Your task to perform on an android device: toggle airplane mode Image 0: 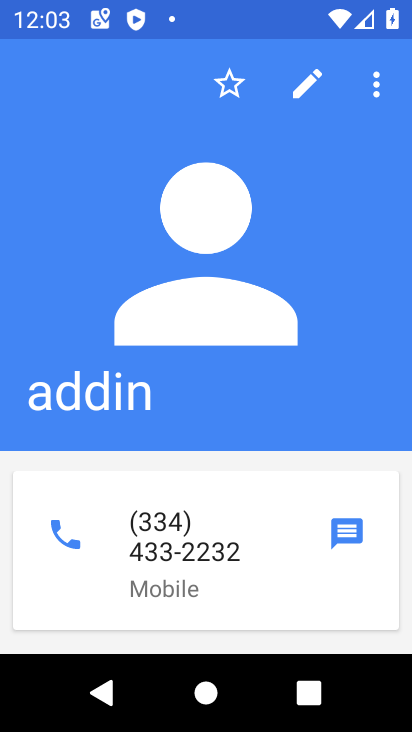
Step 0: press home button
Your task to perform on an android device: toggle airplane mode Image 1: 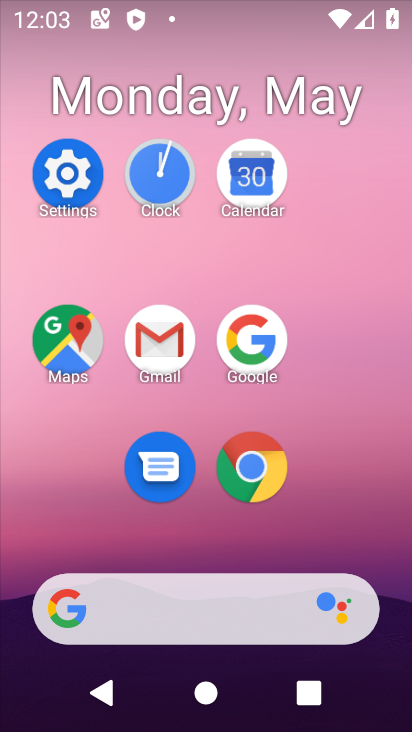
Step 1: click (75, 186)
Your task to perform on an android device: toggle airplane mode Image 2: 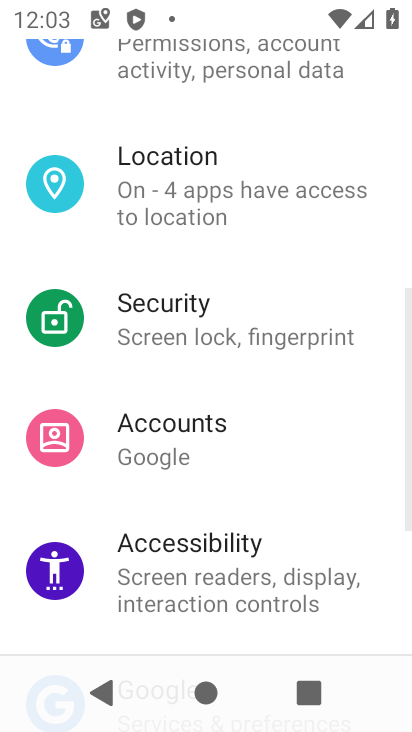
Step 2: drag from (296, 199) to (299, 544)
Your task to perform on an android device: toggle airplane mode Image 3: 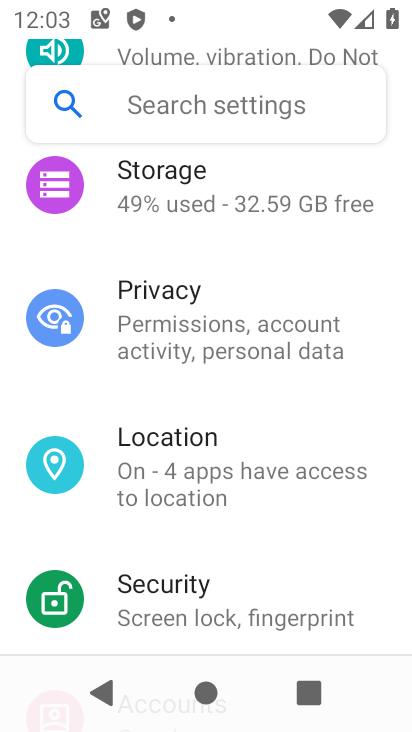
Step 3: drag from (265, 239) to (308, 591)
Your task to perform on an android device: toggle airplane mode Image 4: 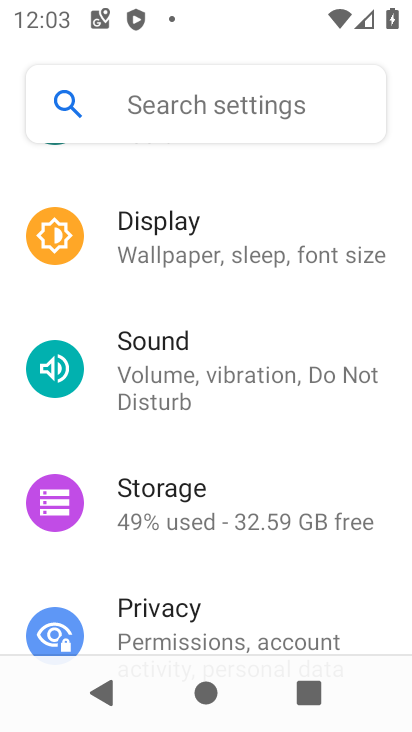
Step 4: drag from (310, 224) to (346, 639)
Your task to perform on an android device: toggle airplane mode Image 5: 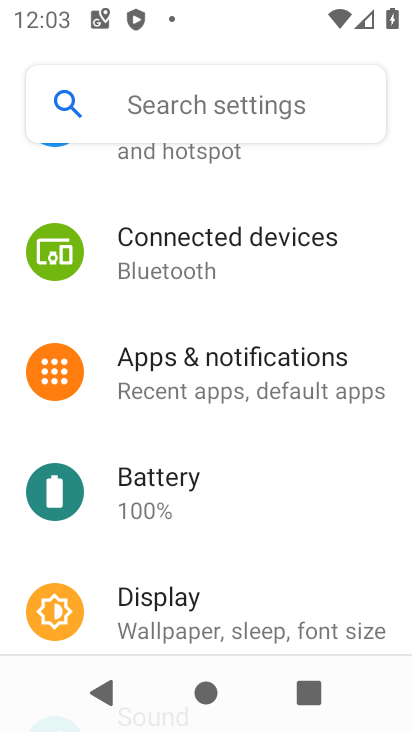
Step 5: drag from (222, 196) to (251, 563)
Your task to perform on an android device: toggle airplane mode Image 6: 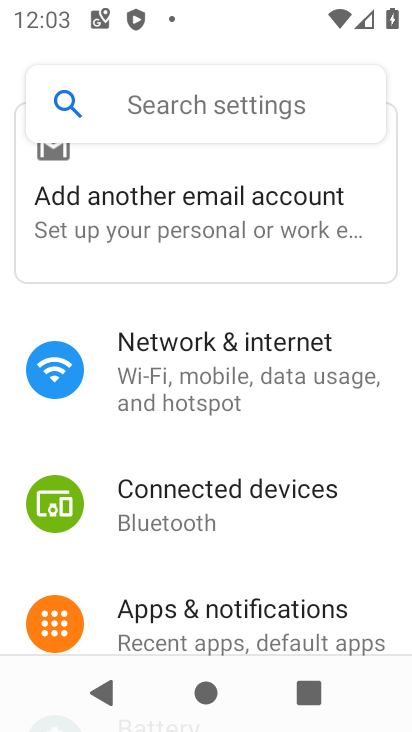
Step 6: click (308, 382)
Your task to perform on an android device: toggle airplane mode Image 7: 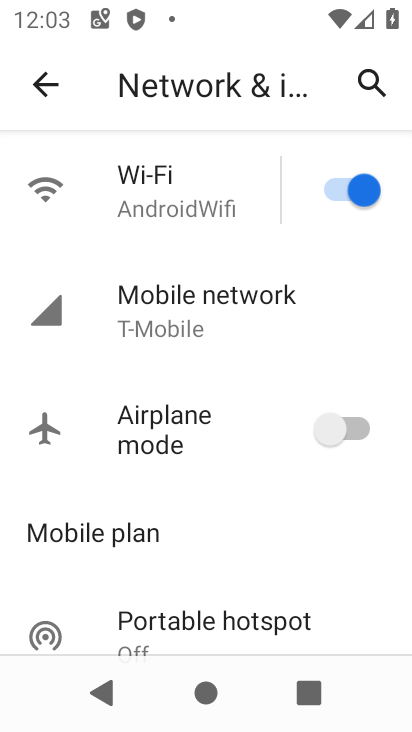
Step 7: click (354, 438)
Your task to perform on an android device: toggle airplane mode Image 8: 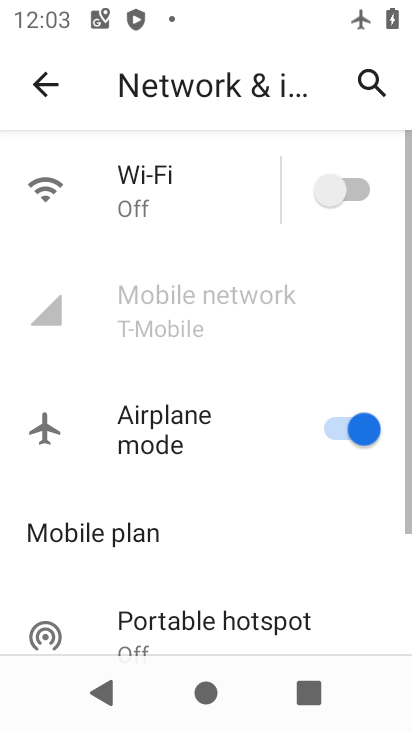
Step 8: task complete